Your task to perform on an android device: stop showing notifications on the lock screen Image 0: 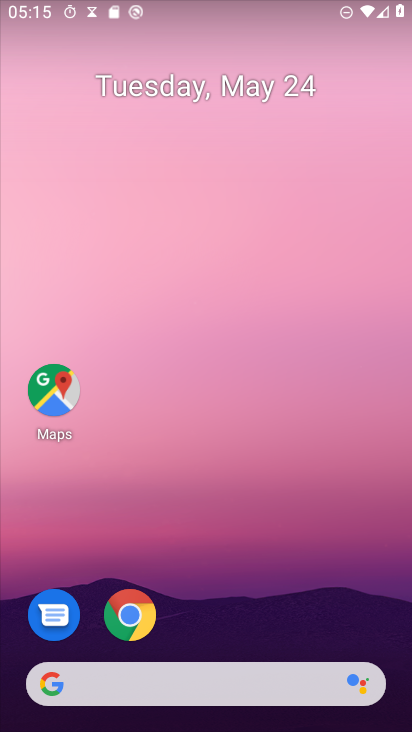
Step 0: drag from (239, 633) to (264, 88)
Your task to perform on an android device: stop showing notifications on the lock screen Image 1: 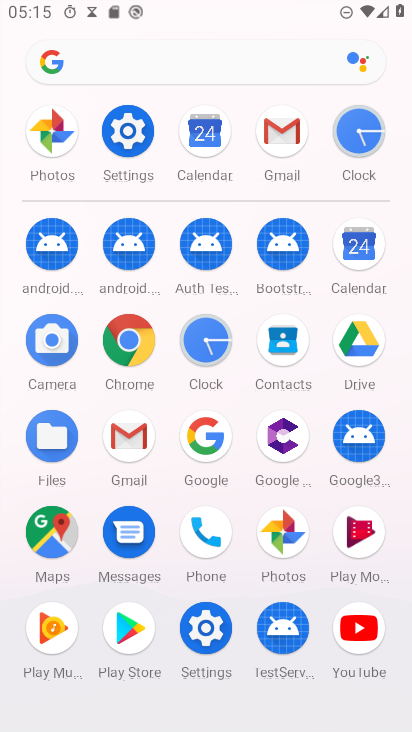
Step 1: click (122, 120)
Your task to perform on an android device: stop showing notifications on the lock screen Image 2: 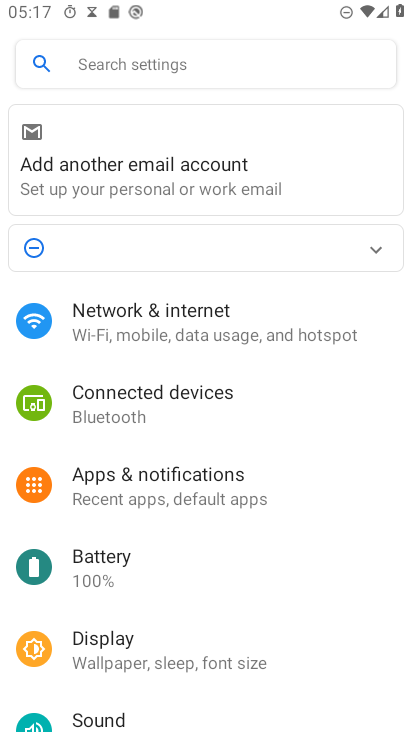
Step 2: click (149, 485)
Your task to perform on an android device: stop showing notifications on the lock screen Image 3: 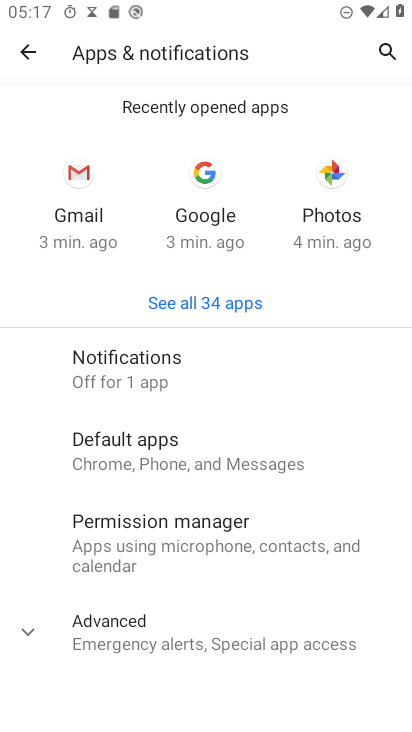
Step 3: click (144, 372)
Your task to perform on an android device: stop showing notifications on the lock screen Image 4: 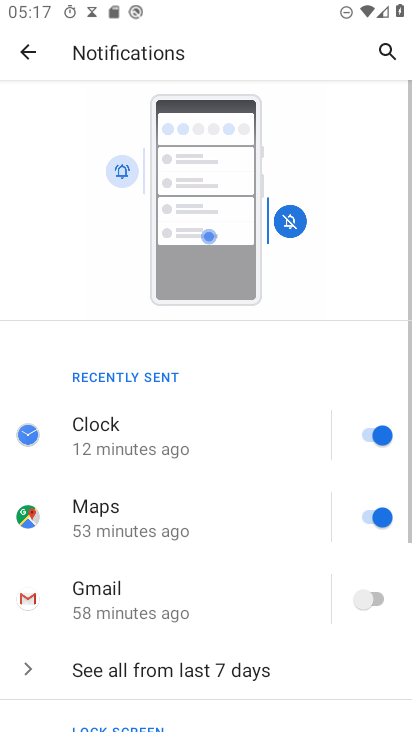
Step 4: drag from (165, 666) to (236, 170)
Your task to perform on an android device: stop showing notifications on the lock screen Image 5: 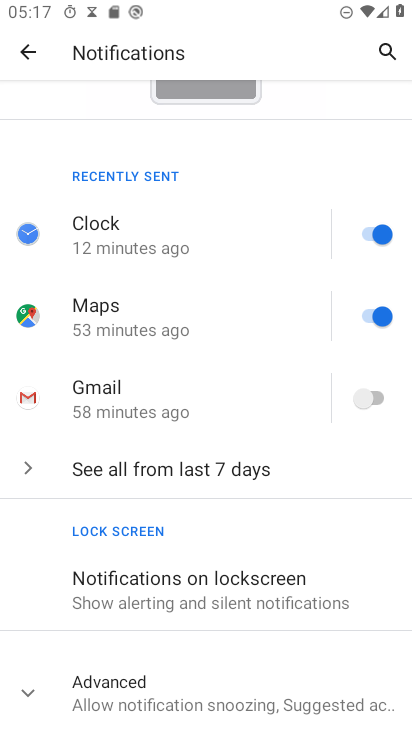
Step 5: click (153, 568)
Your task to perform on an android device: stop showing notifications on the lock screen Image 6: 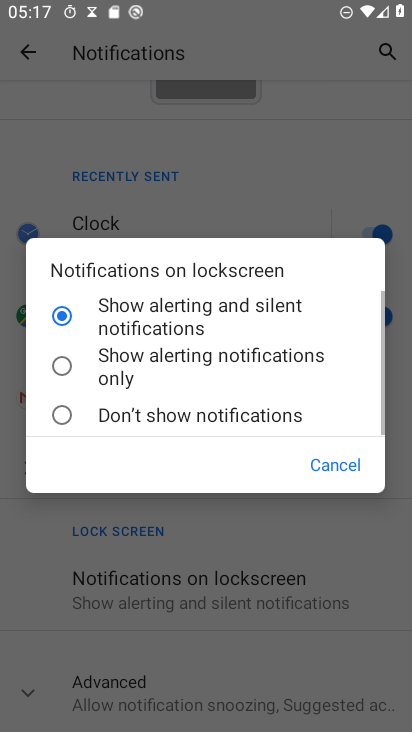
Step 6: click (66, 412)
Your task to perform on an android device: stop showing notifications on the lock screen Image 7: 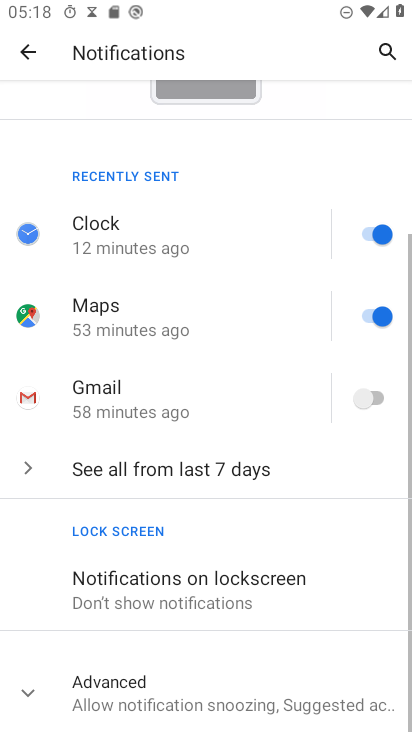
Step 7: task complete